Your task to perform on an android device: toggle notification dots Image 0: 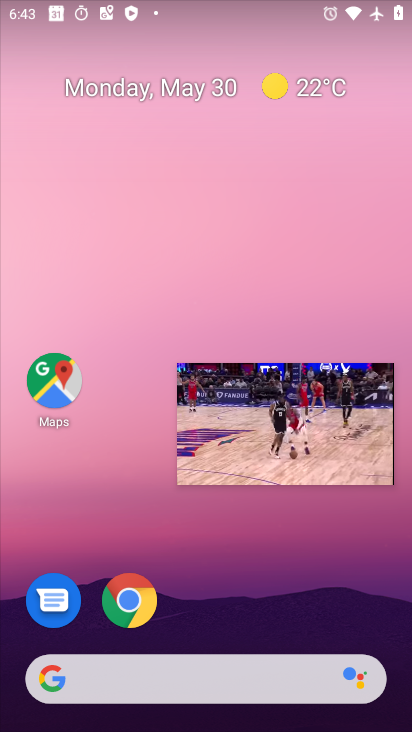
Step 0: click (310, 428)
Your task to perform on an android device: toggle notification dots Image 1: 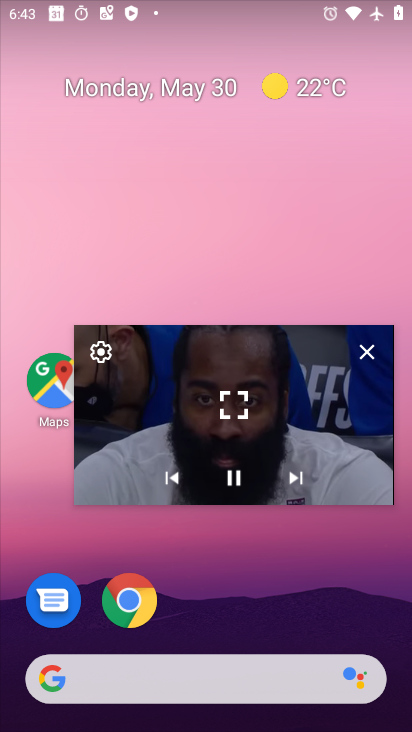
Step 1: click (363, 348)
Your task to perform on an android device: toggle notification dots Image 2: 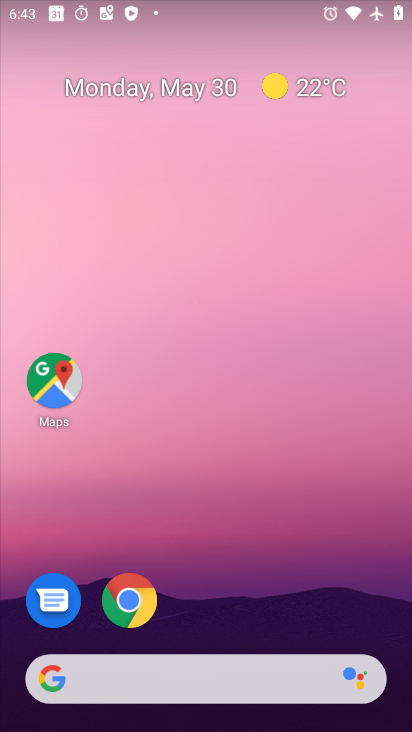
Step 2: drag from (259, 622) to (264, 168)
Your task to perform on an android device: toggle notification dots Image 3: 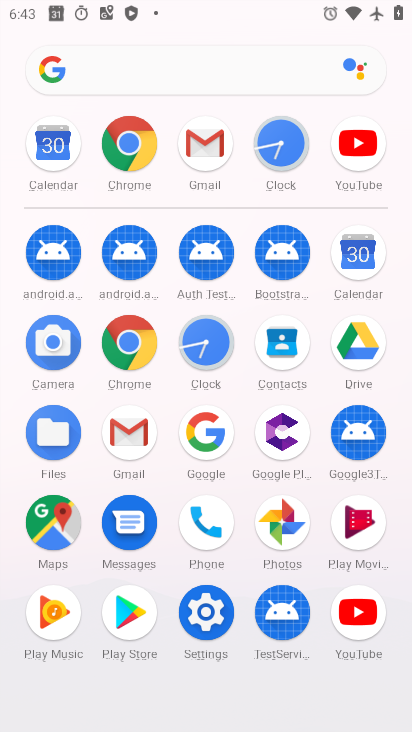
Step 3: click (194, 609)
Your task to perform on an android device: toggle notification dots Image 4: 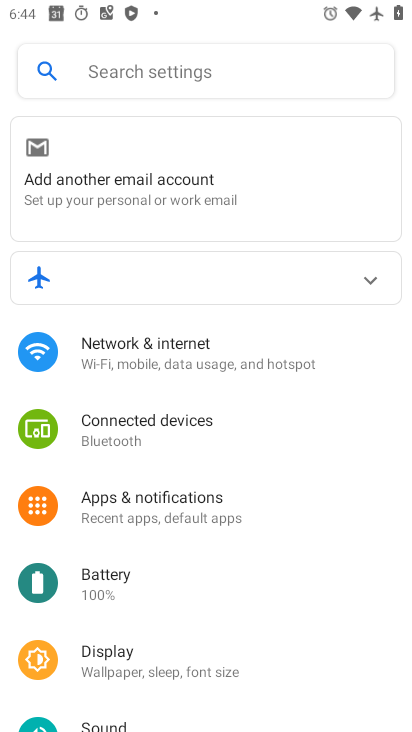
Step 4: click (150, 516)
Your task to perform on an android device: toggle notification dots Image 5: 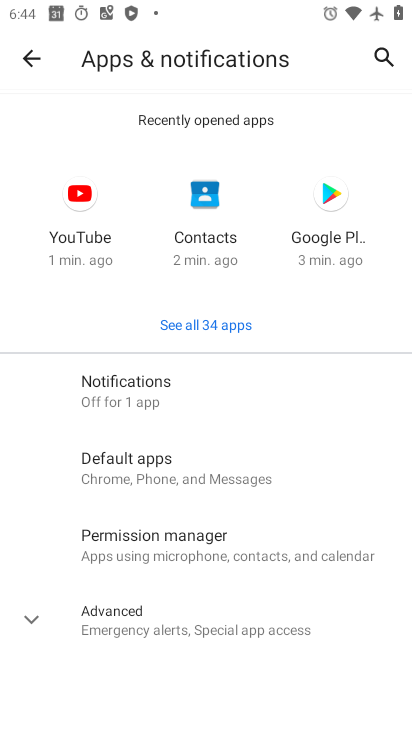
Step 5: click (119, 407)
Your task to perform on an android device: toggle notification dots Image 6: 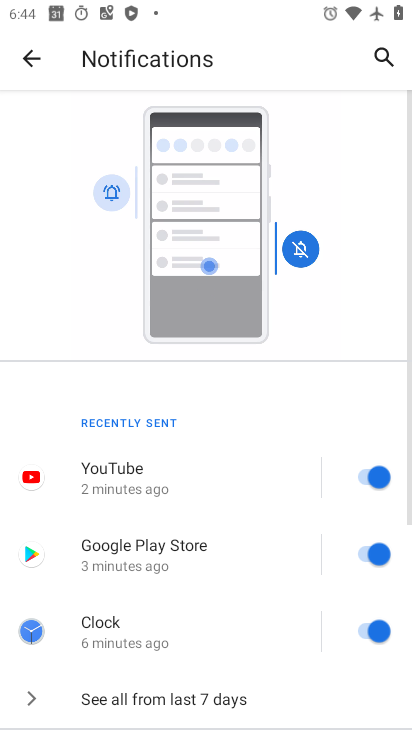
Step 6: drag from (280, 597) to (255, 162)
Your task to perform on an android device: toggle notification dots Image 7: 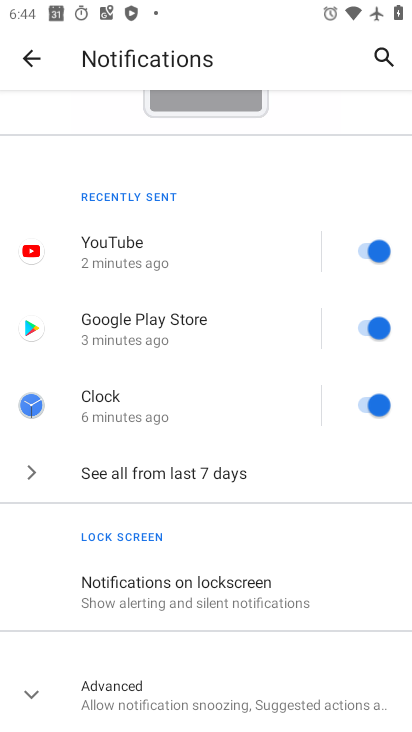
Step 7: click (105, 691)
Your task to perform on an android device: toggle notification dots Image 8: 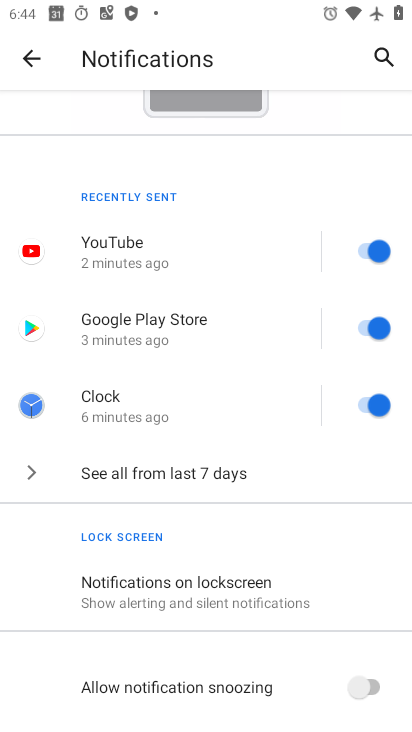
Step 8: drag from (352, 547) to (322, 255)
Your task to perform on an android device: toggle notification dots Image 9: 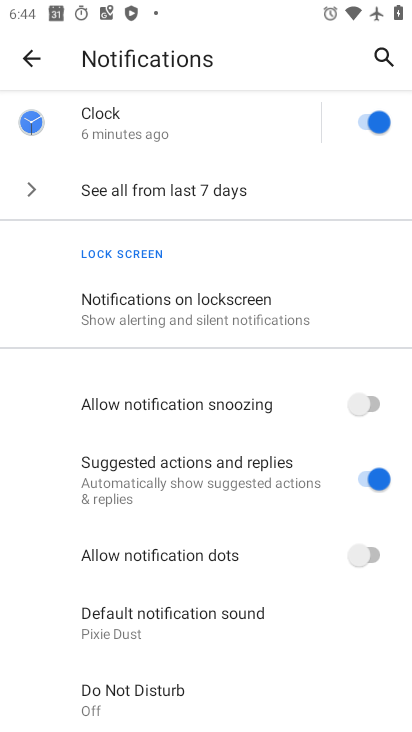
Step 9: click (358, 553)
Your task to perform on an android device: toggle notification dots Image 10: 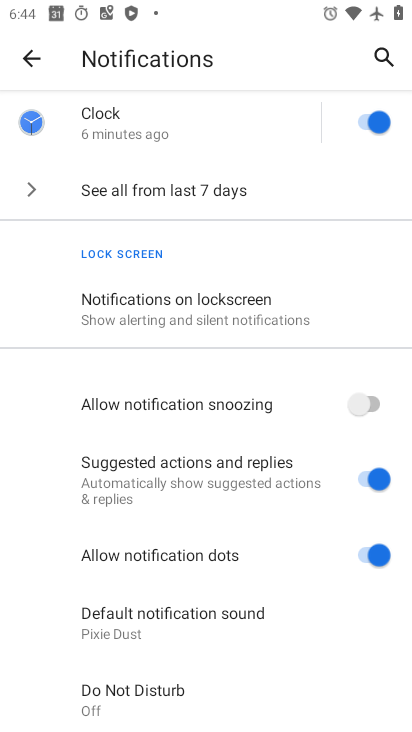
Step 10: task complete